Your task to perform on an android device: open chrome and create a bookmark for the current page Image 0: 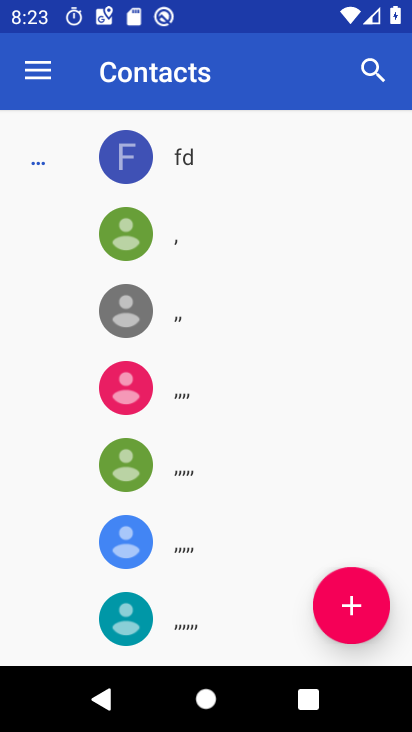
Step 0: press home button
Your task to perform on an android device: open chrome and create a bookmark for the current page Image 1: 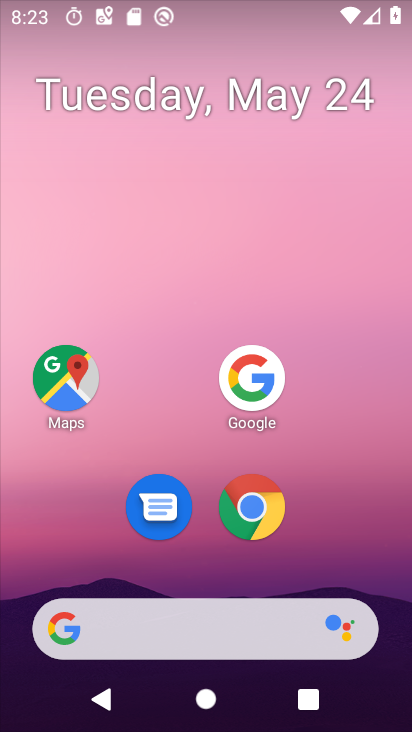
Step 1: click (260, 520)
Your task to perform on an android device: open chrome and create a bookmark for the current page Image 2: 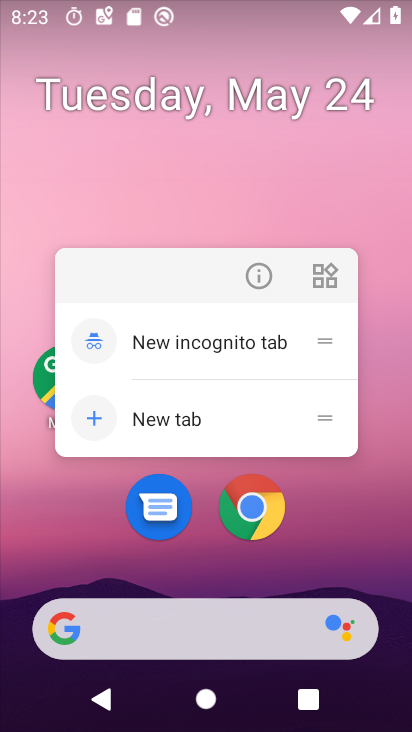
Step 2: click (255, 513)
Your task to perform on an android device: open chrome and create a bookmark for the current page Image 3: 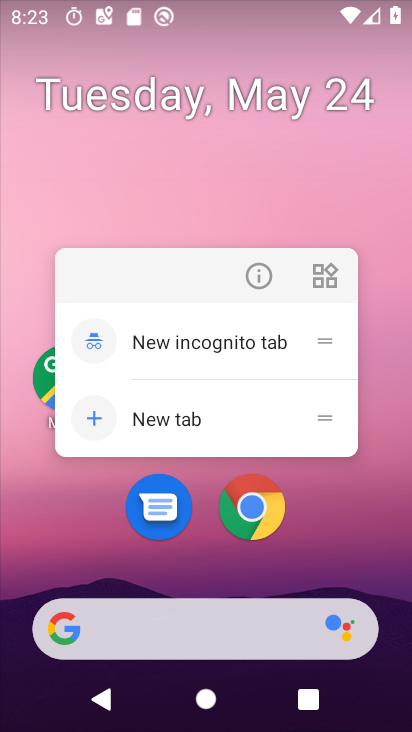
Step 3: click (247, 522)
Your task to perform on an android device: open chrome and create a bookmark for the current page Image 4: 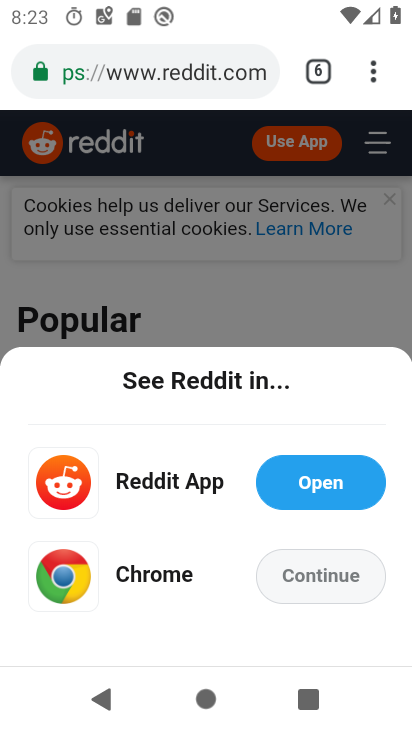
Step 4: click (367, 93)
Your task to perform on an android device: open chrome and create a bookmark for the current page Image 5: 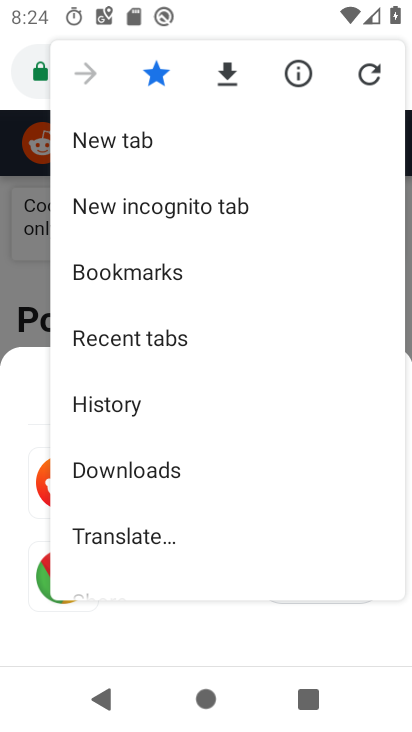
Step 5: task complete